Your task to perform on an android device: read, delete, or share a saved page in the chrome app Image 0: 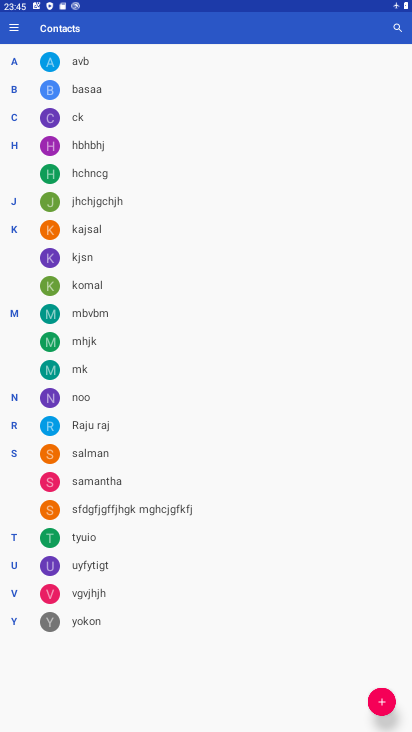
Step 0: press home button
Your task to perform on an android device: read, delete, or share a saved page in the chrome app Image 1: 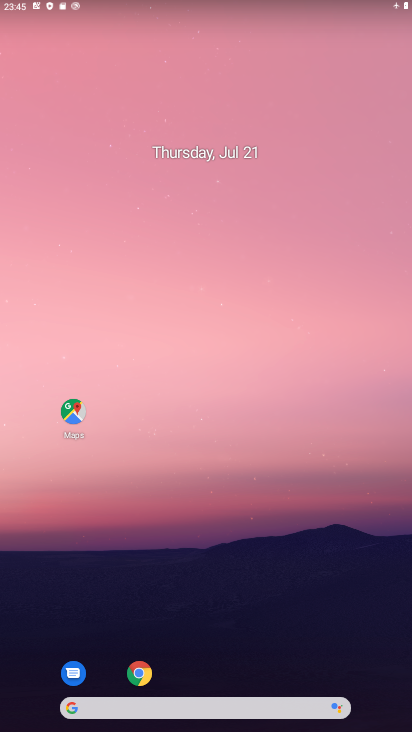
Step 1: click (138, 665)
Your task to perform on an android device: read, delete, or share a saved page in the chrome app Image 2: 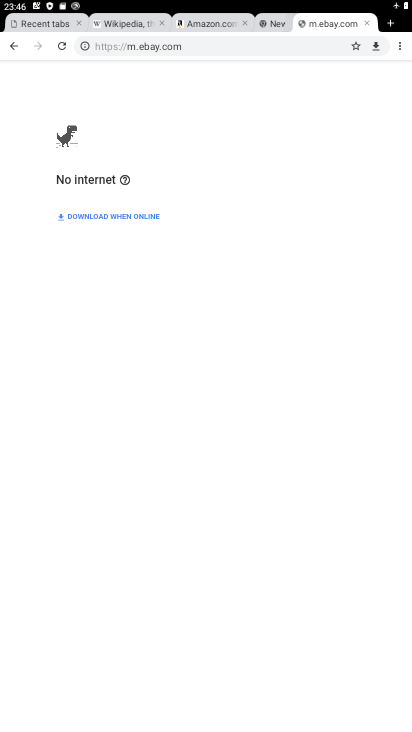
Step 2: click (398, 45)
Your task to perform on an android device: read, delete, or share a saved page in the chrome app Image 3: 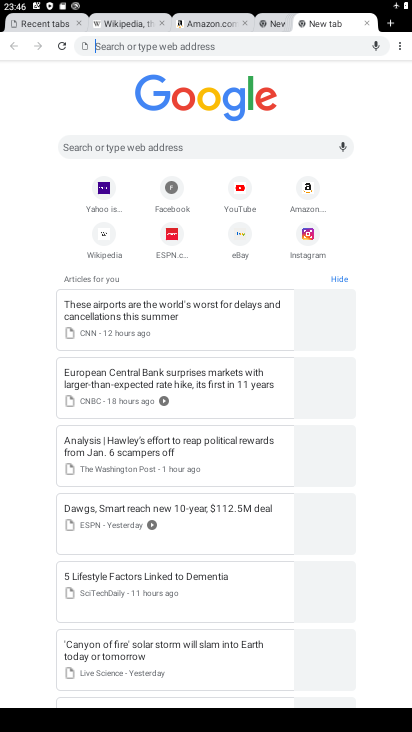
Step 3: drag from (395, 49) to (322, 169)
Your task to perform on an android device: read, delete, or share a saved page in the chrome app Image 4: 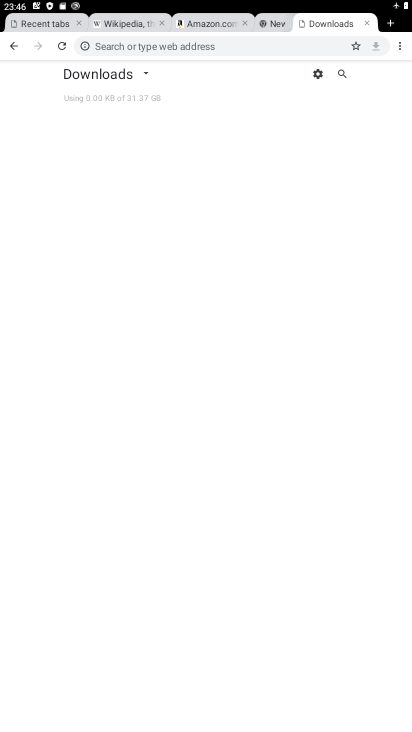
Step 4: click (149, 72)
Your task to perform on an android device: read, delete, or share a saved page in the chrome app Image 5: 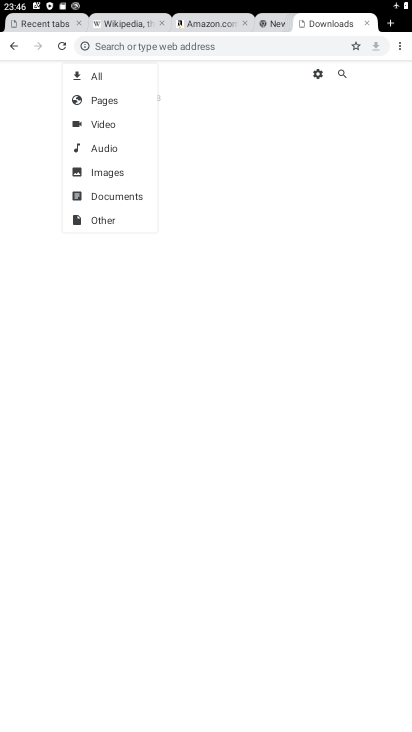
Step 5: click (104, 104)
Your task to perform on an android device: read, delete, or share a saved page in the chrome app Image 6: 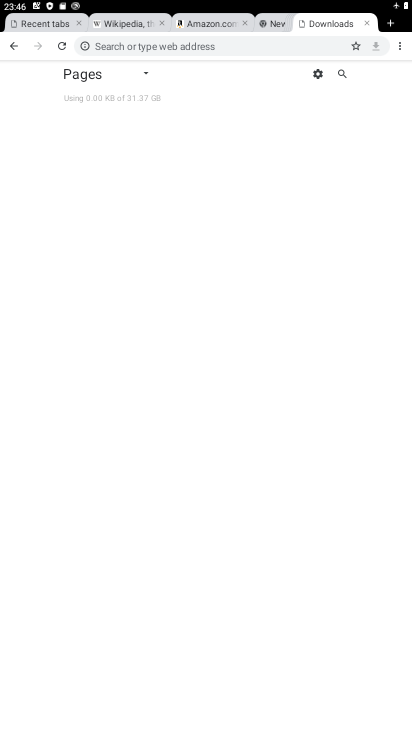
Step 6: task complete